Your task to perform on an android device: create a new album in the google photos Image 0: 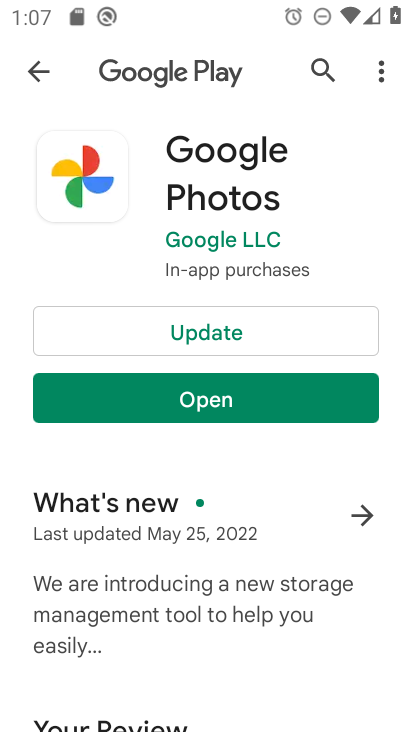
Step 0: press home button
Your task to perform on an android device: create a new album in the google photos Image 1: 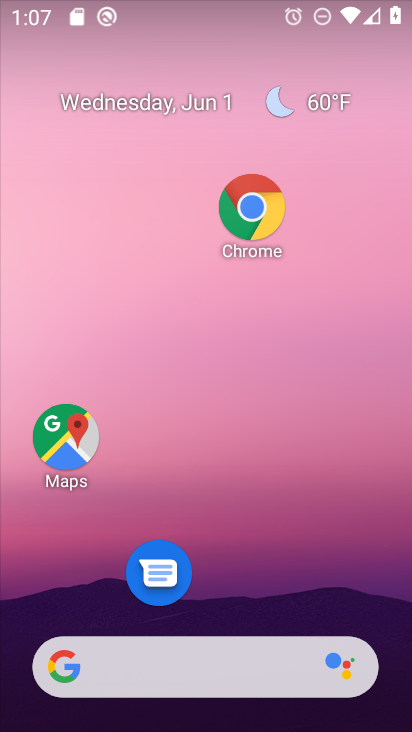
Step 1: drag from (216, 565) to (207, 185)
Your task to perform on an android device: create a new album in the google photos Image 2: 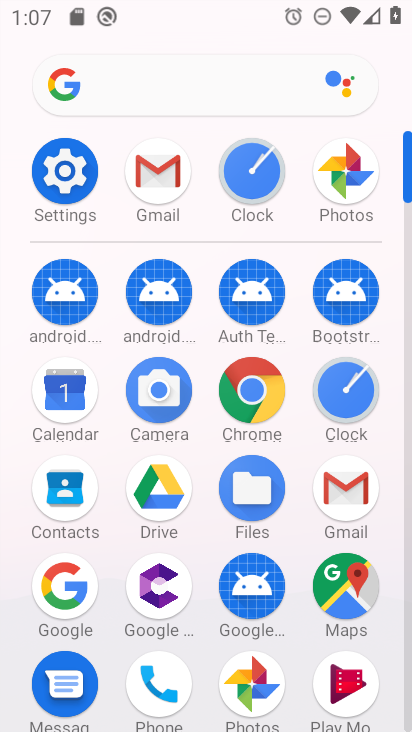
Step 2: click (331, 179)
Your task to perform on an android device: create a new album in the google photos Image 3: 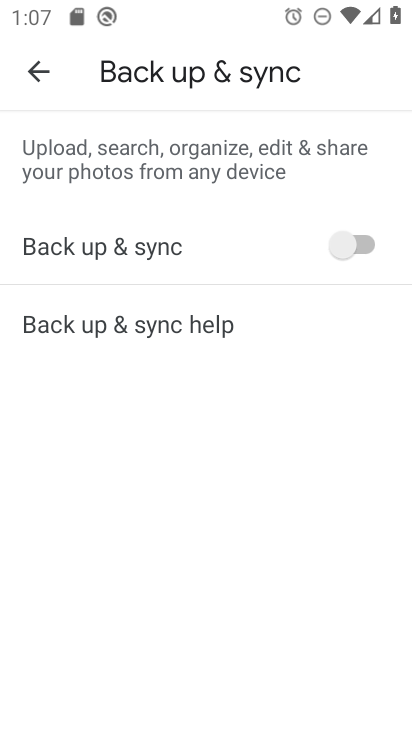
Step 3: click (34, 63)
Your task to perform on an android device: create a new album in the google photos Image 4: 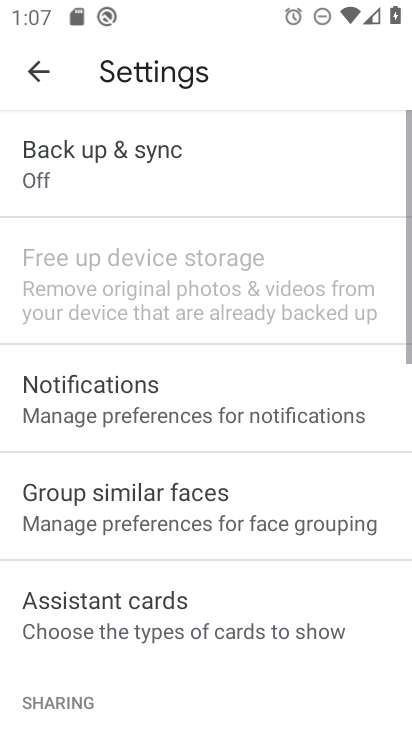
Step 4: click (34, 63)
Your task to perform on an android device: create a new album in the google photos Image 5: 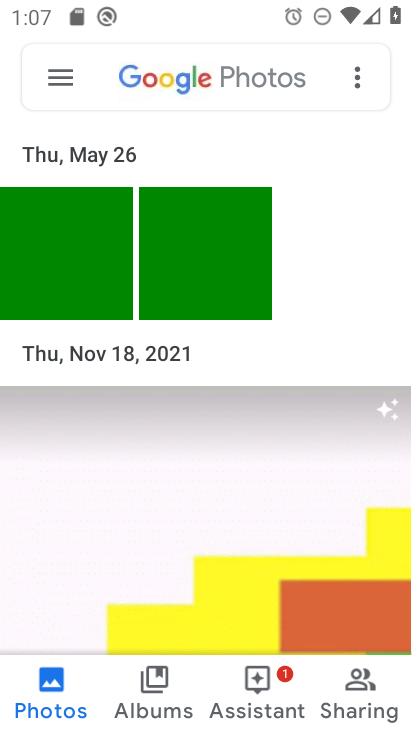
Step 5: click (361, 70)
Your task to perform on an android device: create a new album in the google photos Image 6: 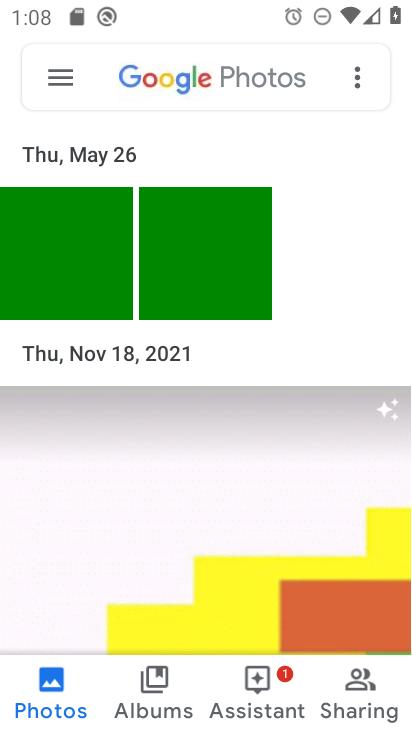
Step 6: click (360, 71)
Your task to perform on an android device: create a new album in the google photos Image 7: 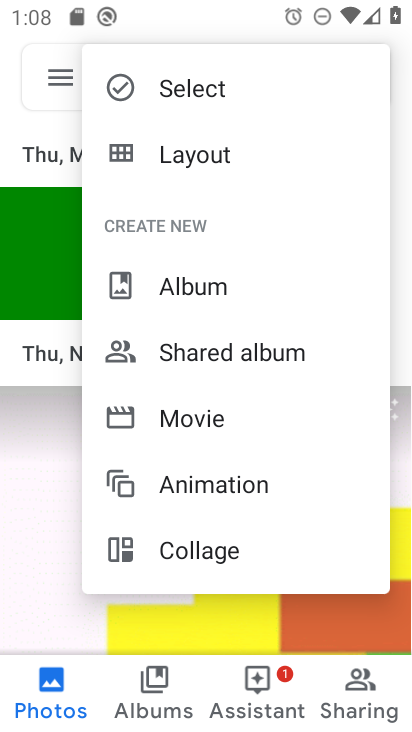
Step 7: click (269, 148)
Your task to perform on an android device: create a new album in the google photos Image 8: 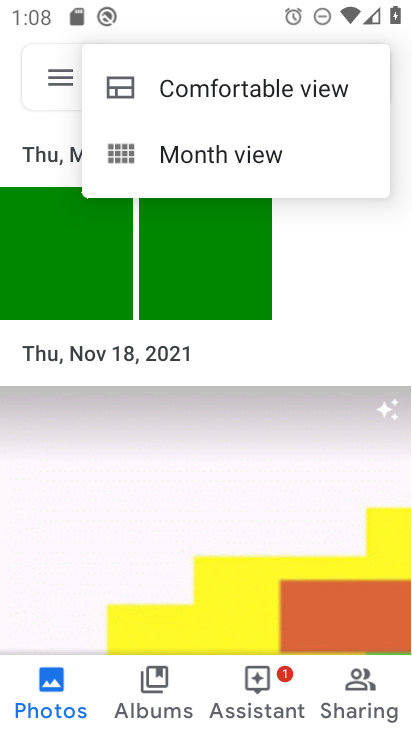
Step 8: click (270, 277)
Your task to perform on an android device: create a new album in the google photos Image 9: 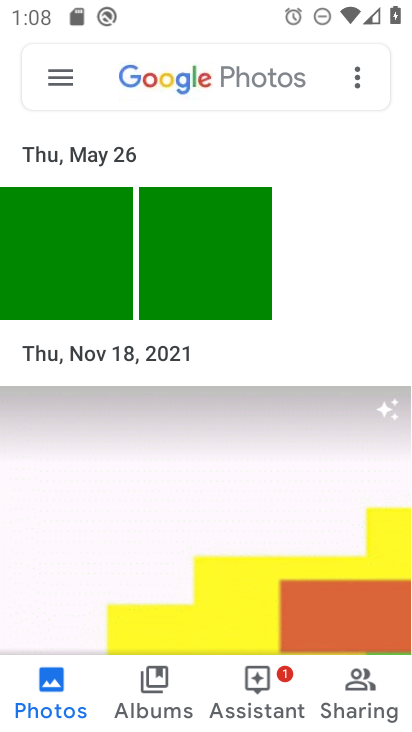
Step 9: click (357, 91)
Your task to perform on an android device: create a new album in the google photos Image 10: 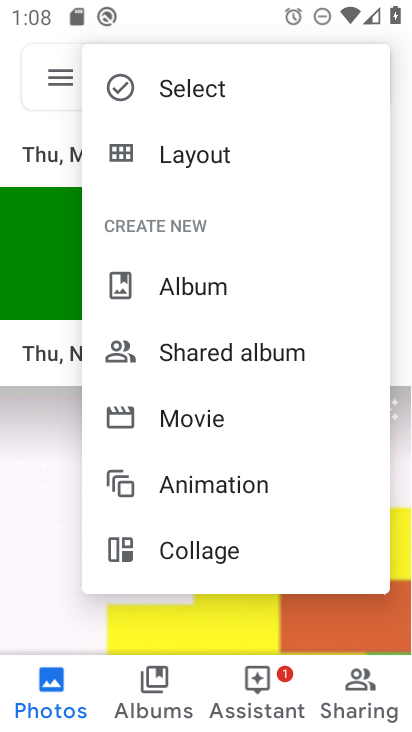
Step 10: click (168, 288)
Your task to perform on an android device: create a new album in the google photos Image 11: 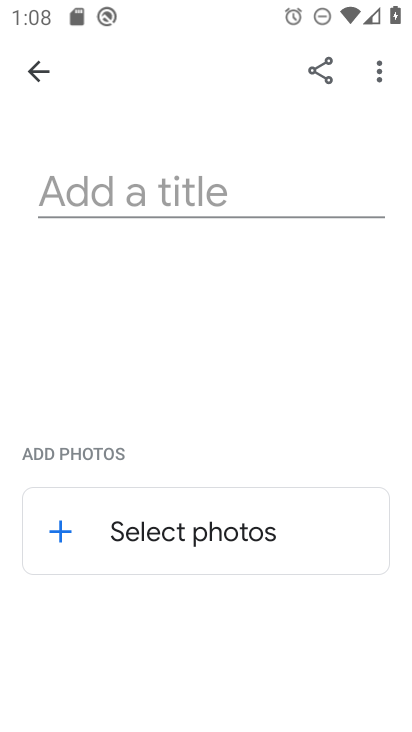
Step 11: click (228, 191)
Your task to perform on an android device: create a new album in the google photos Image 12: 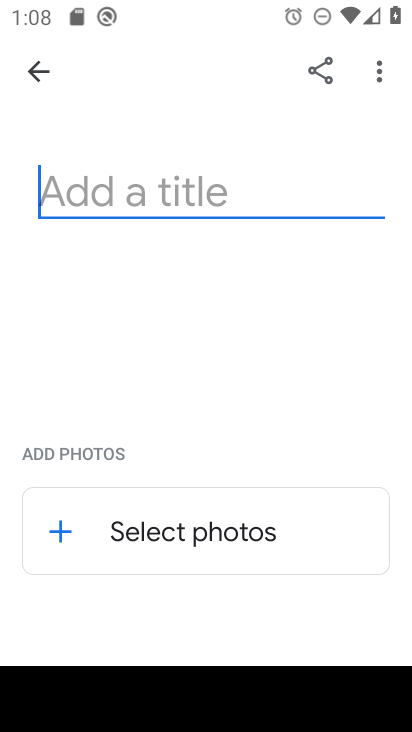
Step 12: type "hgcjh"
Your task to perform on an android device: create a new album in the google photos Image 13: 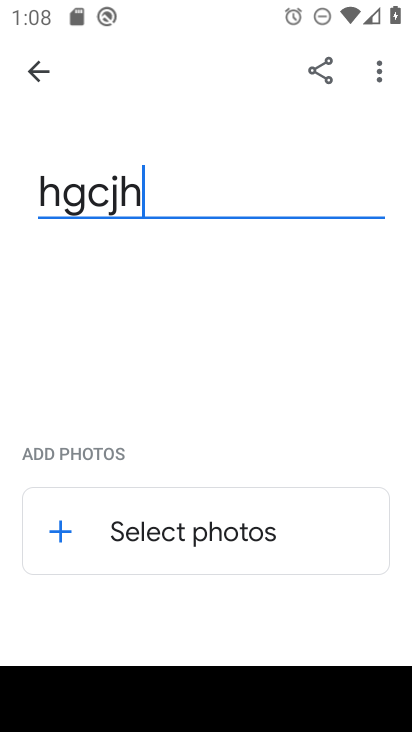
Step 13: click (54, 533)
Your task to perform on an android device: create a new album in the google photos Image 14: 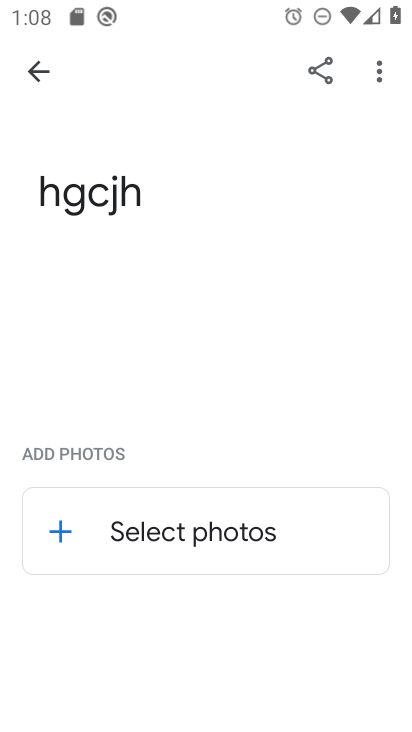
Step 14: click (63, 533)
Your task to perform on an android device: create a new album in the google photos Image 15: 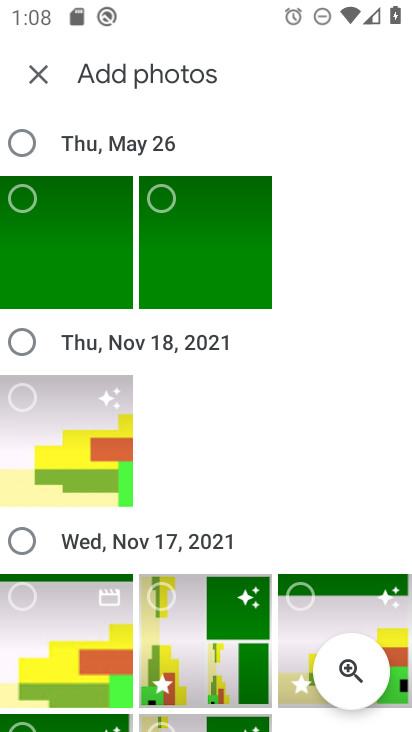
Step 15: click (47, 615)
Your task to perform on an android device: create a new album in the google photos Image 16: 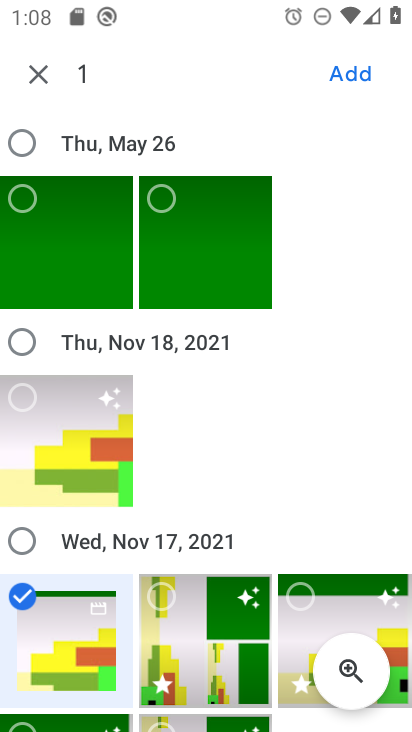
Step 16: click (368, 68)
Your task to perform on an android device: create a new album in the google photos Image 17: 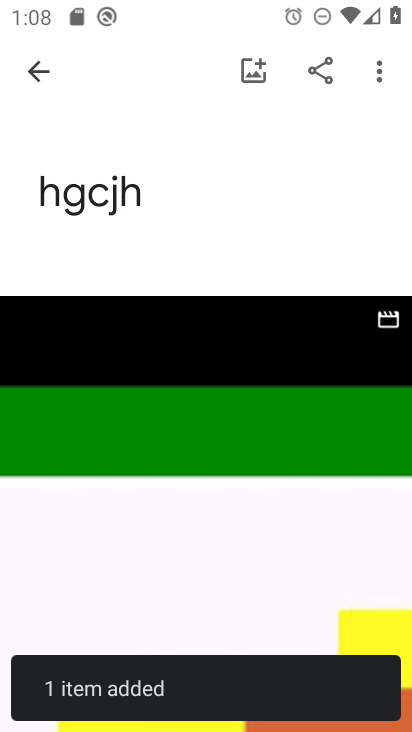
Step 17: task complete